Your task to perform on an android device: Toggle the flashlight Image 0: 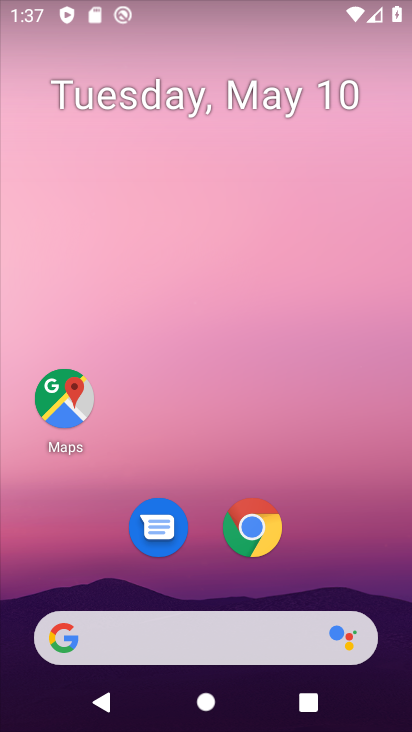
Step 0: drag from (319, 0) to (269, 660)
Your task to perform on an android device: Toggle the flashlight Image 1: 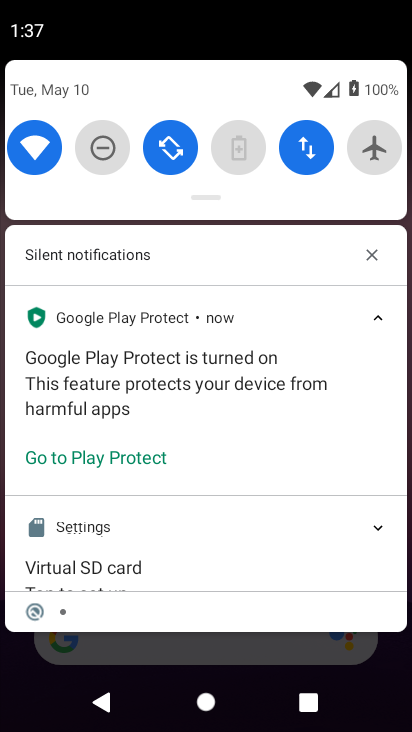
Step 1: task complete